Your task to perform on an android device: See recent photos Image 0: 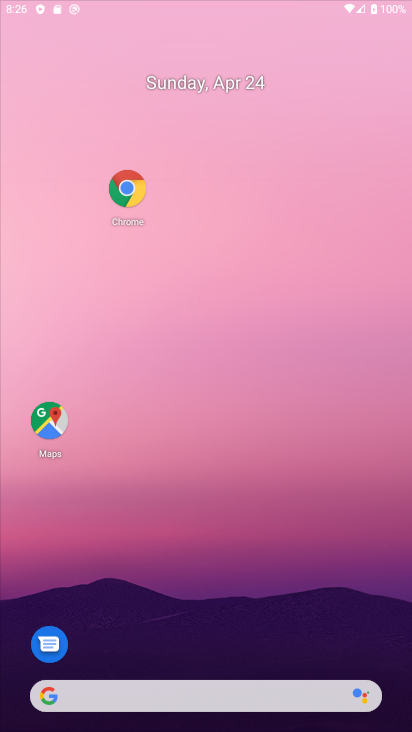
Step 0: drag from (190, 604) to (268, 1)
Your task to perform on an android device: See recent photos Image 1: 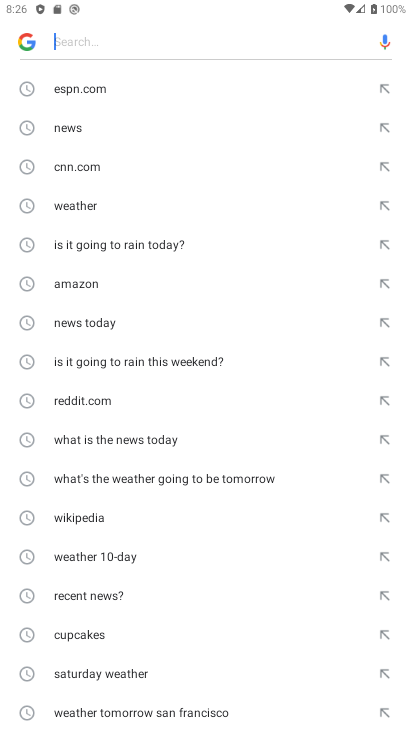
Step 1: press home button
Your task to perform on an android device: See recent photos Image 2: 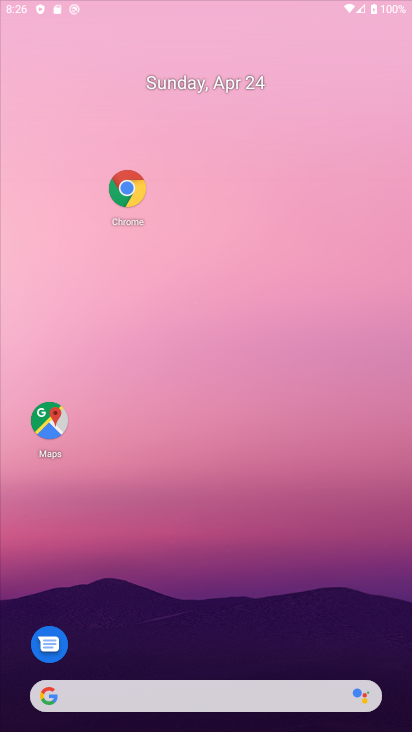
Step 2: drag from (193, 653) to (310, 186)
Your task to perform on an android device: See recent photos Image 3: 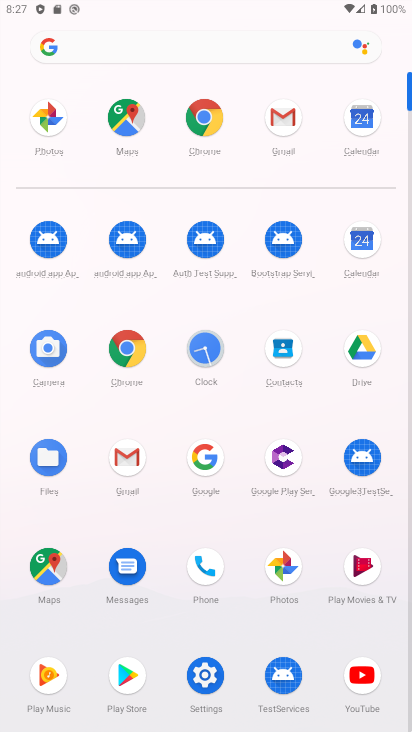
Step 3: click (286, 567)
Your task to perform on an android device: See recent photos Image 4: 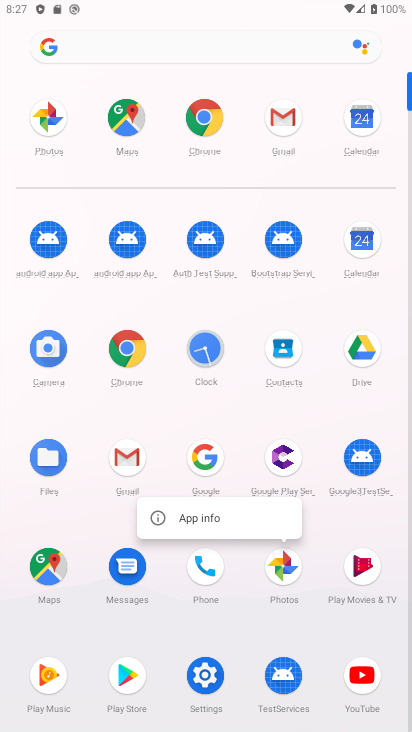
Step 4: click (258, 515)
Your task to perform on an android device: See recent photos Image 5: 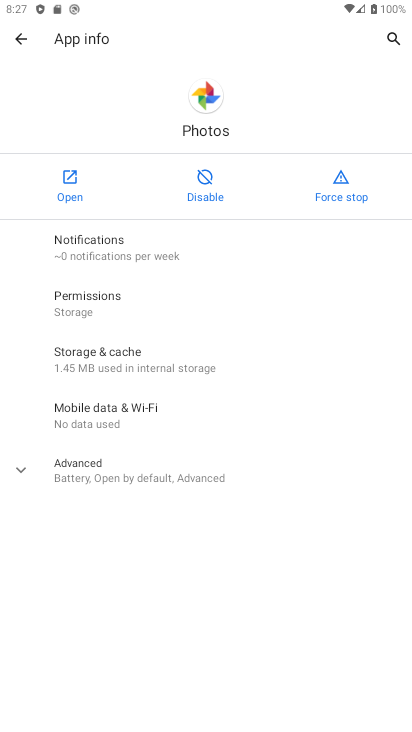
Step 5: click (58, 185)
Your task to perform on an android device: See recent photos Image 6: 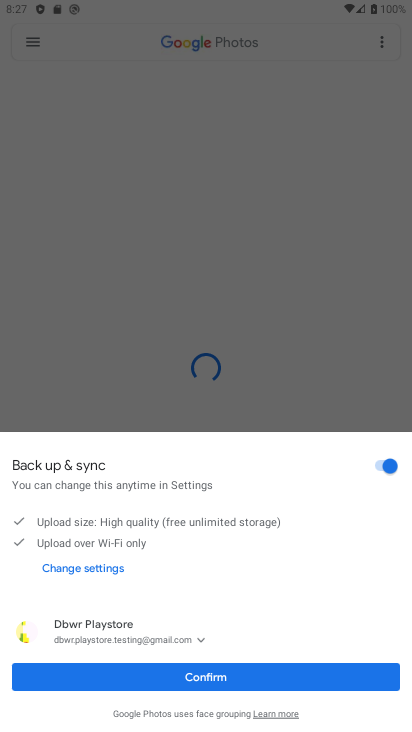
Step 6: click (206, 676)
Your task to perform on an android device: See recent photos Image 7: 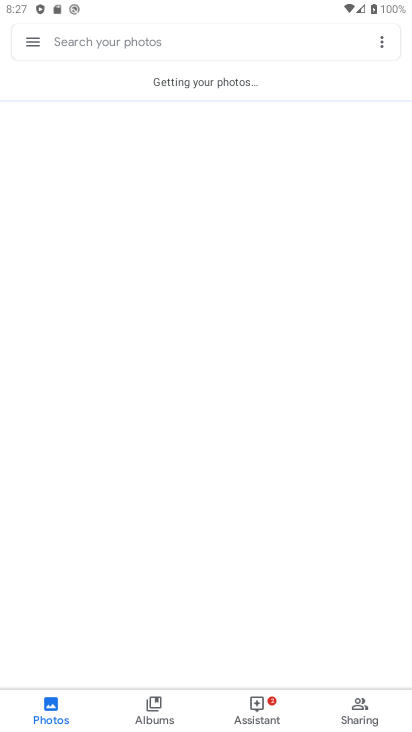
Step 7: click (289, 222)
Your task to perform on an android device: See recent photos Image 8: 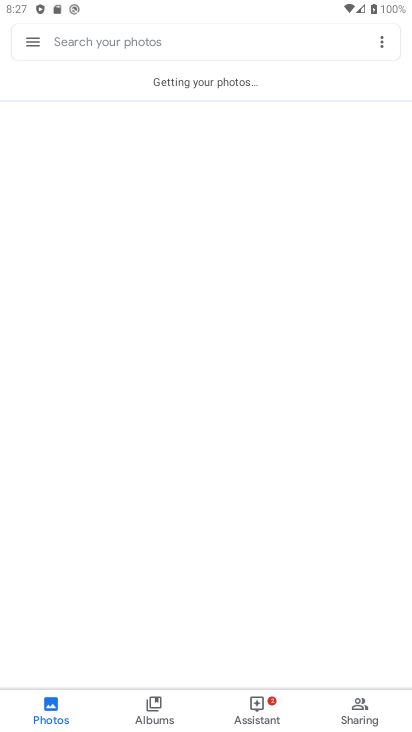
Step 8: click (230, 70)
Your task to perform on an android device: See recent photos Image 9: 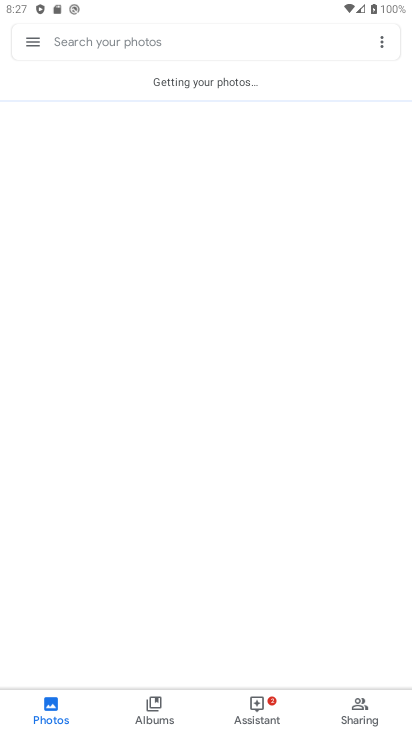
Step 9: click (197, 75)
Your task to perform on an android device: See recent photos Image 10: 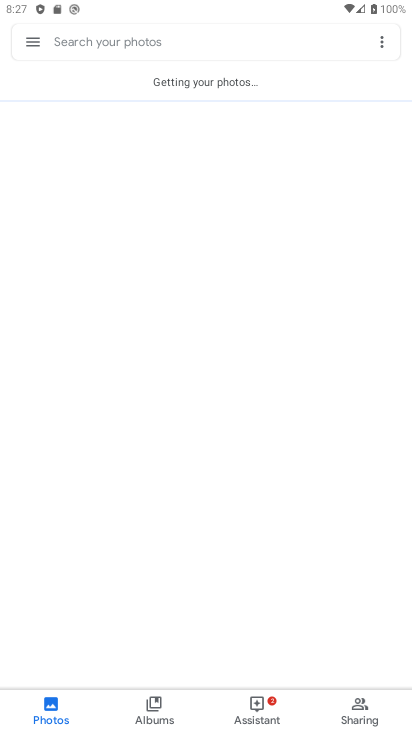
Step 10: click (161, 82)
Your task to perform on an android device: See recent photos Image 11: 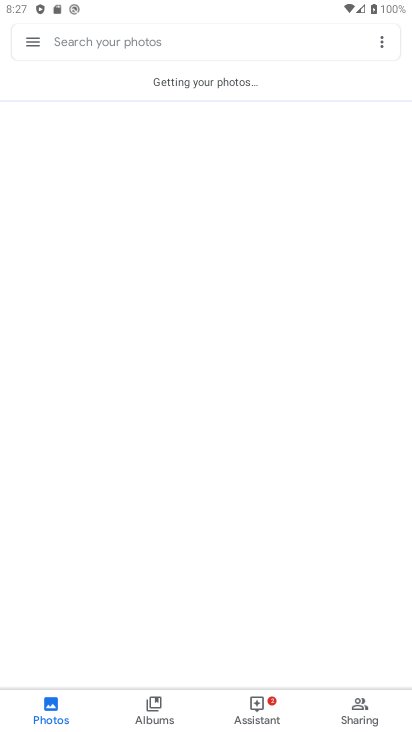
Step 11: click (155, 76)
Your task to perform on an android device: See recent photos Image 12: 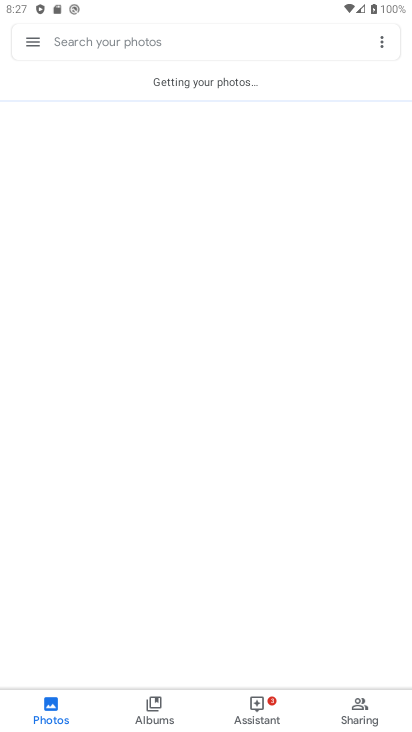
Step 12: click (154, 76)
Your task to perform on an android device: See recent photos Image 13: 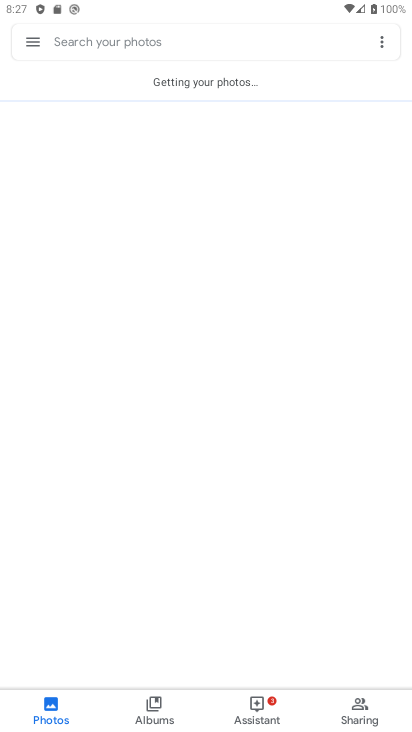
Step 13: click (153, 76)
Your task to perform on an android device: See recent photos Image 14: 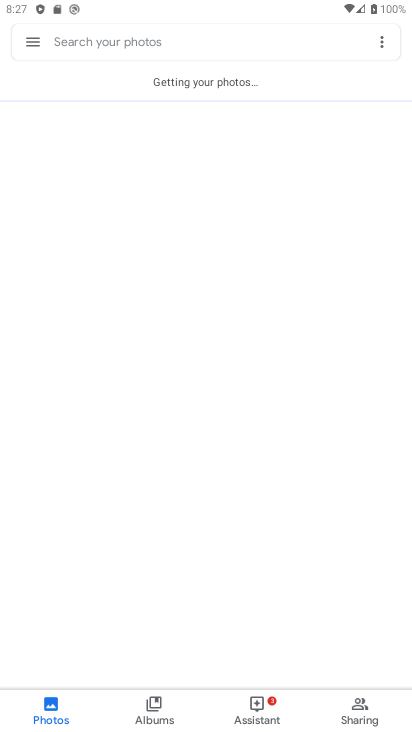
Step 14: drag from (153, 75) to (256, 69)
Your task to perform on an android device: See recent photos Image 15: 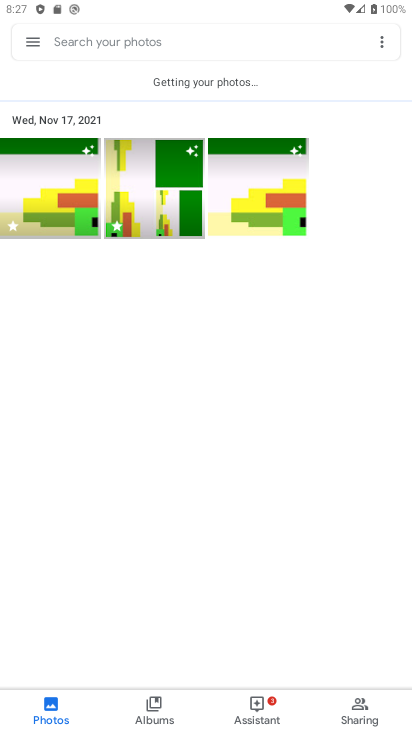
Step 15: click (162, 206)
Your task to perform on an android device: See recent photos Image 16: 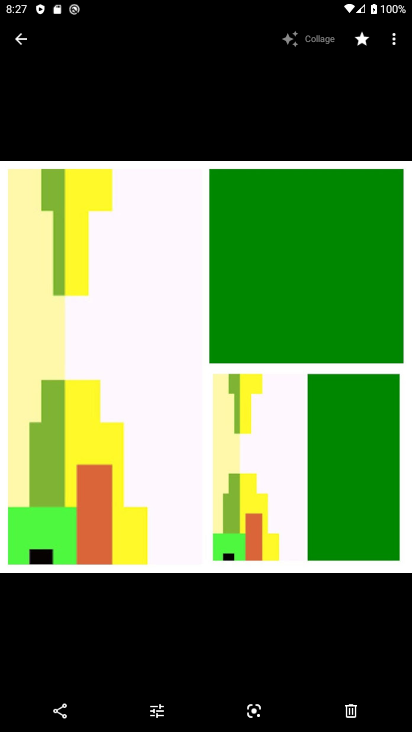
Step 16: task complete